Your task to perform on an android device: Show me recent news Image 0: 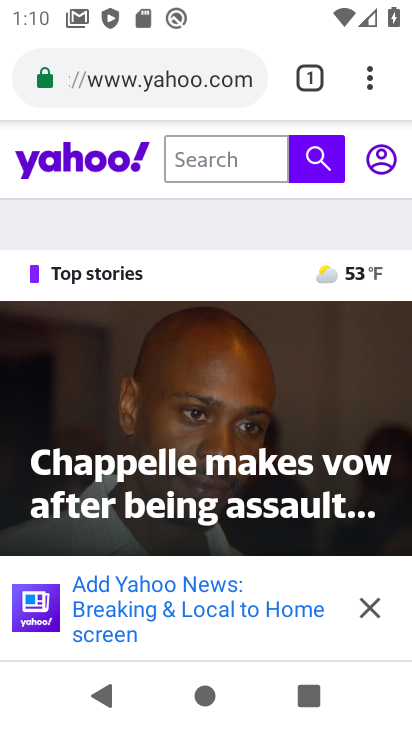
Step 0: press home button
Your task to perform on an android device: Show me recent news Image 1: 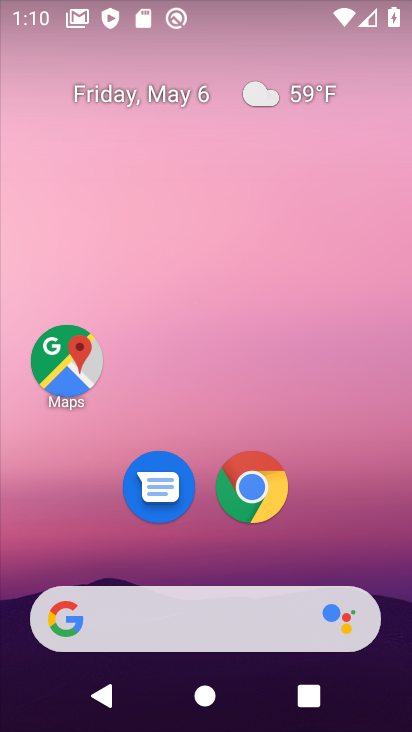
Step 1: drag from (148, 517) to (257, 128)
Your task to perform on an android device: Show me recent news Image 2: 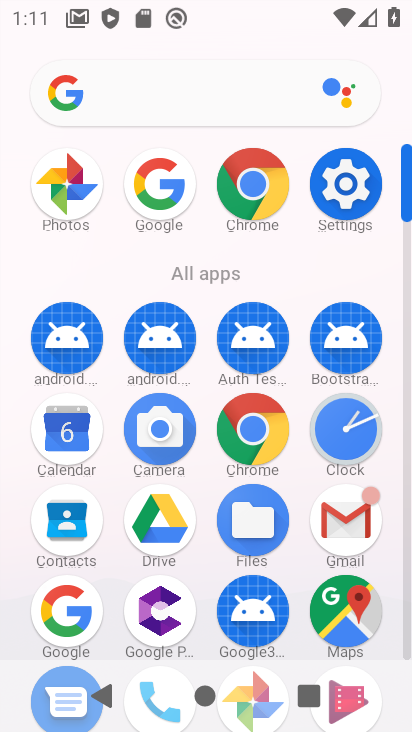
Step 2: click (69, 610)
Your task to perform on an android device: Show me recent news Image 3: 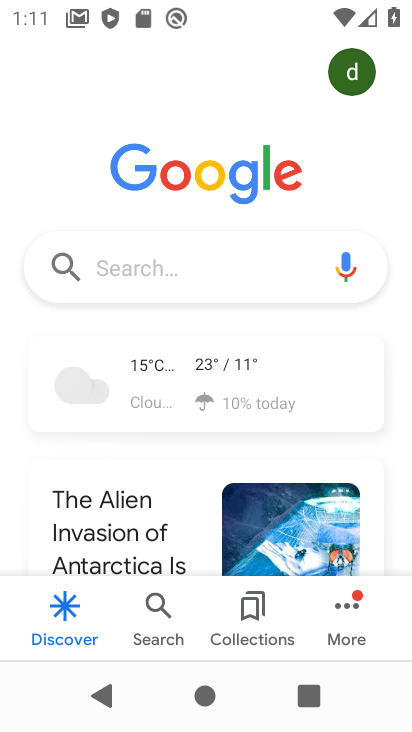
Step 3: click (190, 272)
Your task to perform on an android device: Show me recent news Image 4: 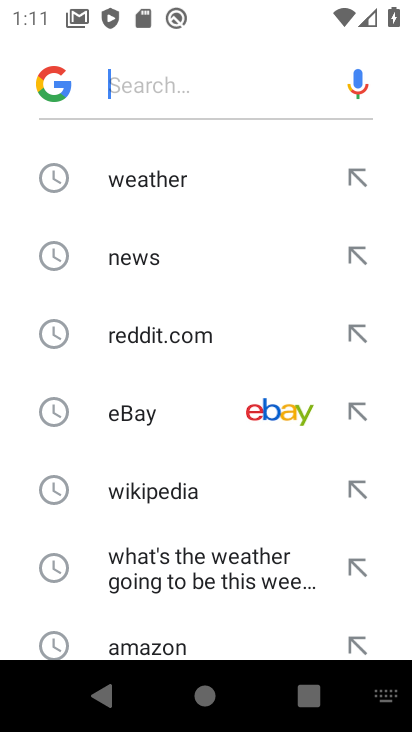
Step 4: click (194, 260)
Your task to perform on an android device: Show me recent news Image 5: 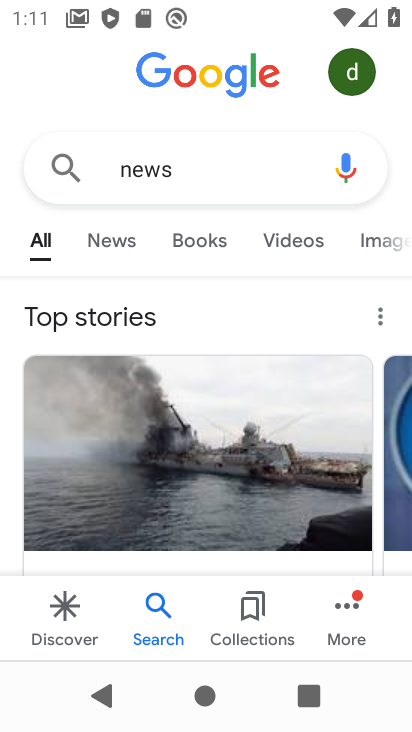
Step 5: click (116, 240)
Your task to perform on an android device: Show me recent news Image 6: 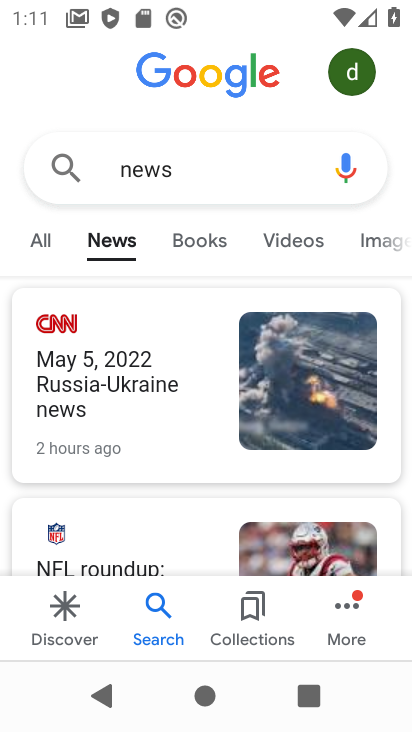
Step 6: task complete